Your task to perform on an android device: Go to Yahoo.com Image 0: 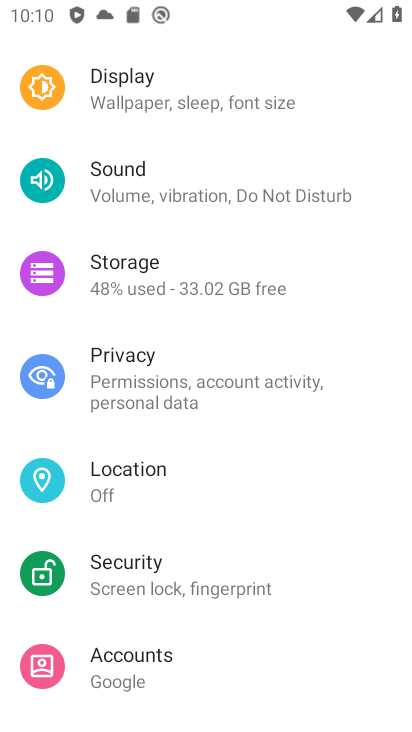
Step 0: press home button
Your task to perform on an android device: Go to Yahoo.com Image 1: 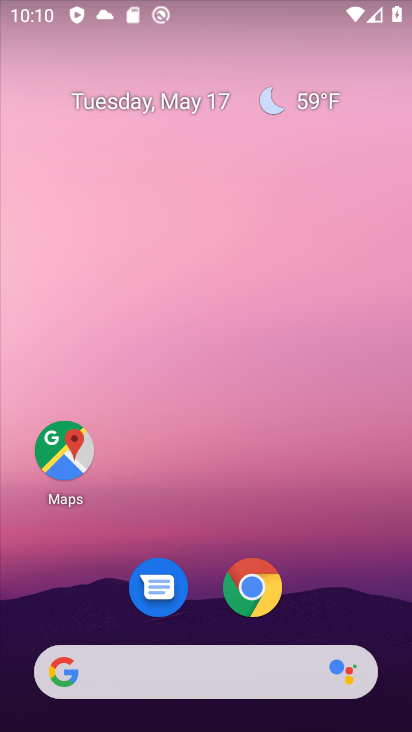
Step 1: click (238, 588)
Your task to perform on an android device: Go to Yahoo.com Image 2: 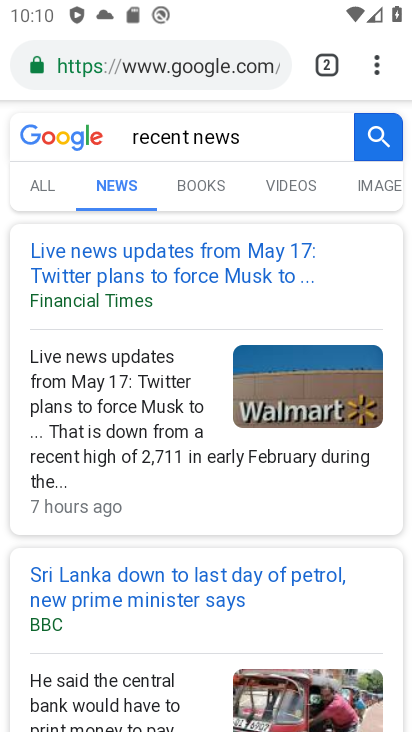
Step 2: click (329, 72)
Your task to perform on an android device: Go to Yahoo.com Image 3: 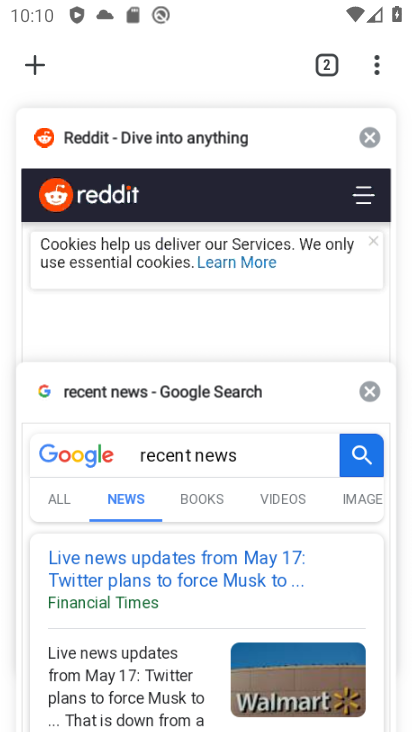
Step 3: click (37, 60)
Your task to perform on an android device: Go to Yahoo.com Image 4: 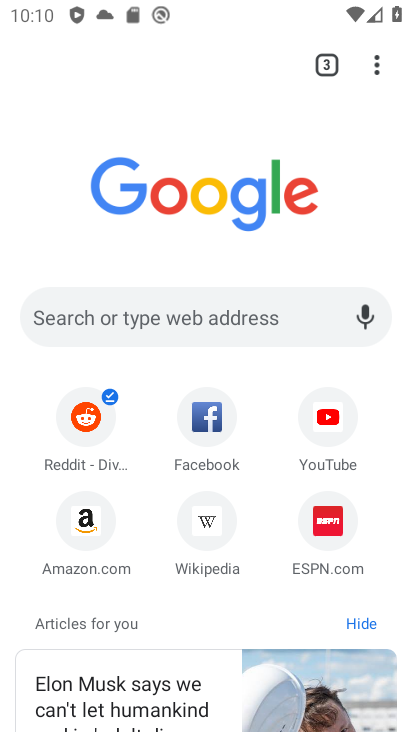
Step 4: click (181, 334)
Your task to perform on an android device: Go to Yahoo.com Image 5: 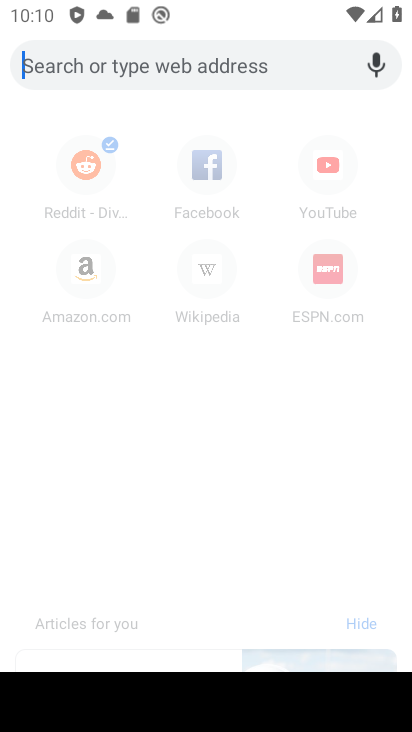
Step 5: type "Yahoo.com"
Your task to perform on an android device: Go to Yahoo.com Image 6: 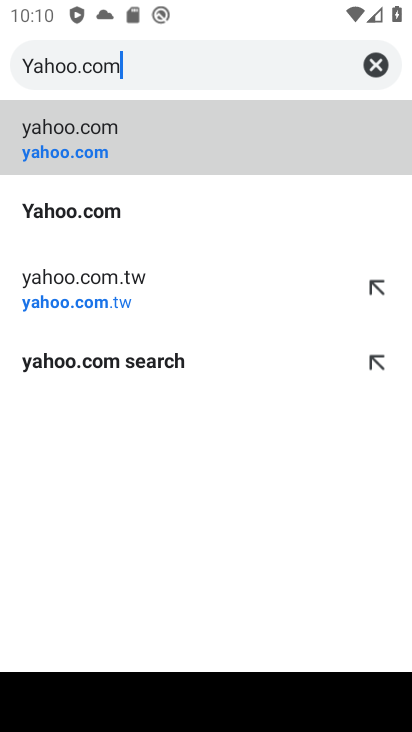
Step 6: click (50, 159)
Your task to perform on an android device: Go to Yahoo.com Image 7: 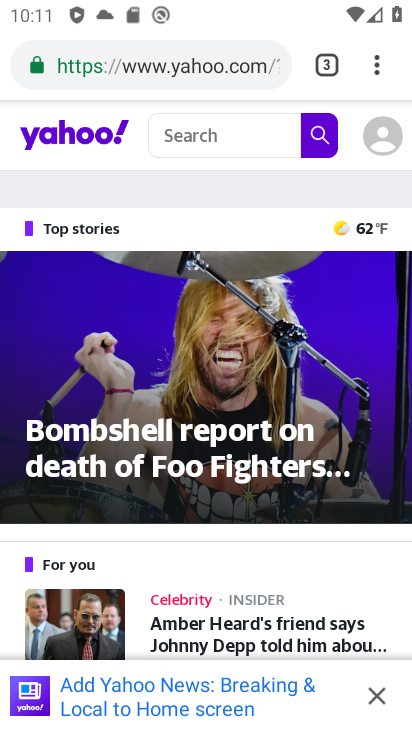
Step 7: task complete